Your task to perform on an android device: add a label to a message in the gmail app Image 0: 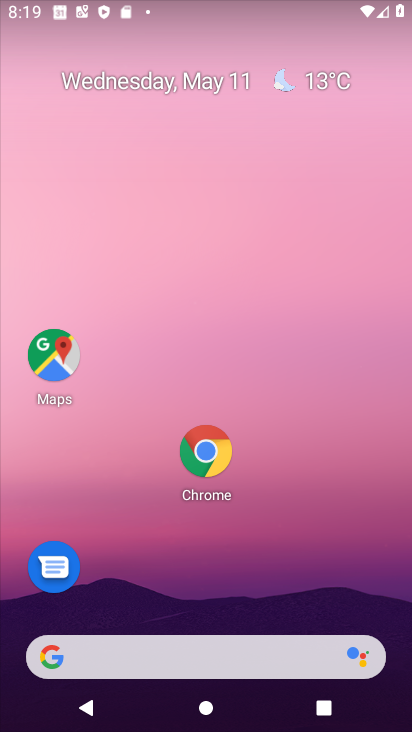
Step 0: drag from (144, 661) to (303, 160)
Your task to perform on an android device: add a label to a message in the gmail app Image 1: 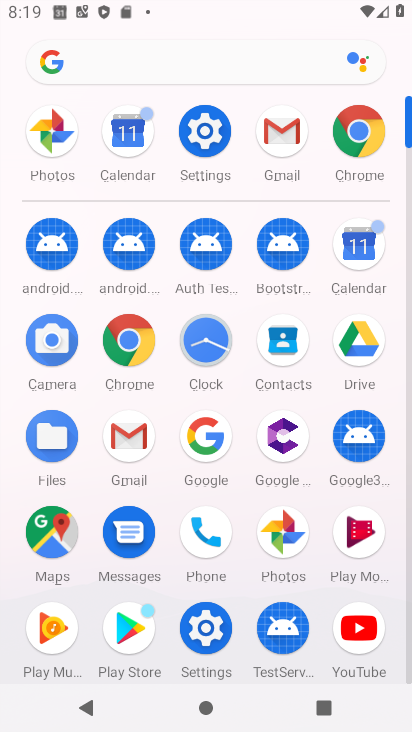
Step 1: click (284, 142)
Your task to perform on an android device: add a label to a message in the gmail app Image 2: 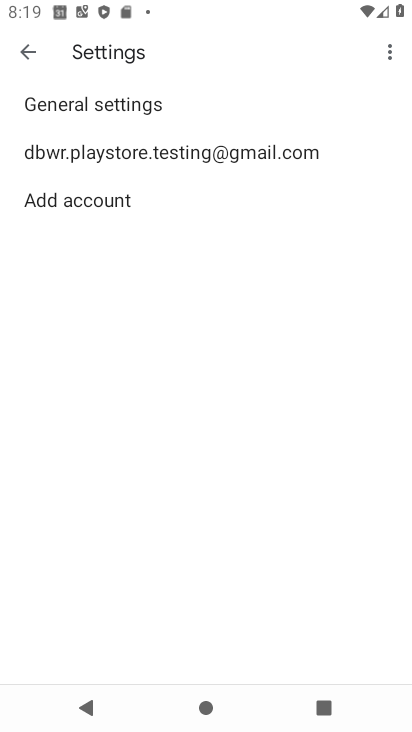
Step 2: click (28, 55)
Your task to perform on an android device: add a label to a message in the gmail app Image 3: 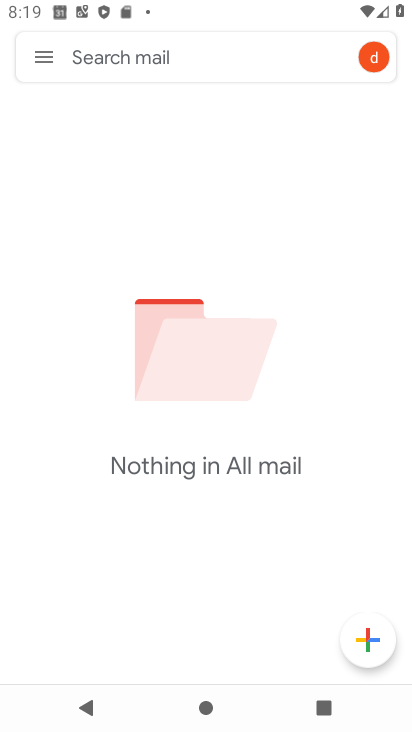
Step 3: task complete